Your task to perform on an android device: Go to eBay Image 0: 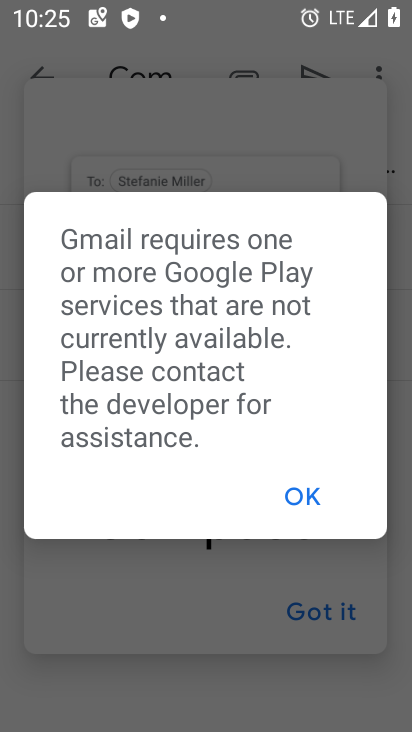
Step 0: press home button
Your task to perform on an android device: Go to eBay Image 1: 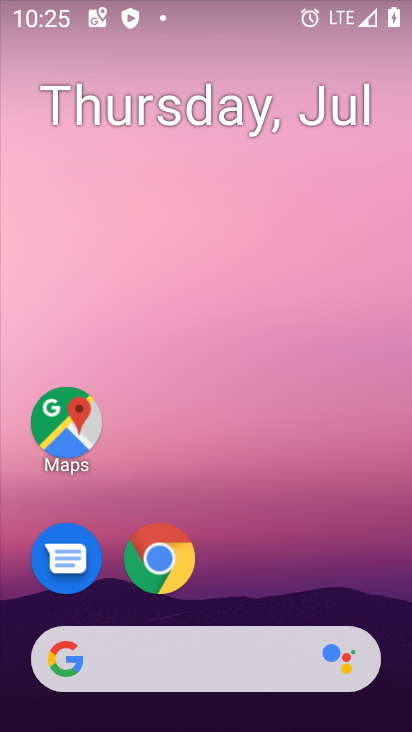
Step 1: drag from (379, 569) to (389, 79)
Your task to perform on an android device: Go to eBay Image 2: 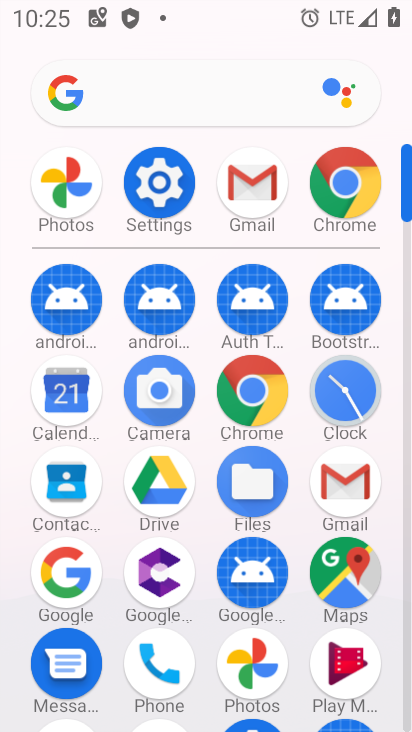
Step 2: click (349, 195)
Your task to perform on an android device: Go to eBay Image 3: 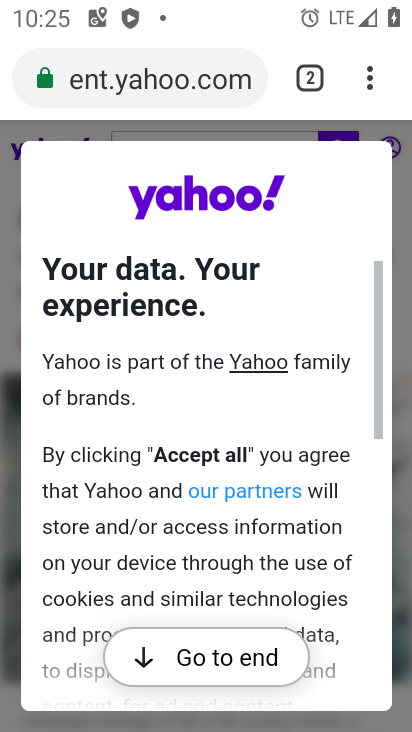
Step 3: click (190, 82)
Your task to perform on an android device: Go to eBay Image 4: 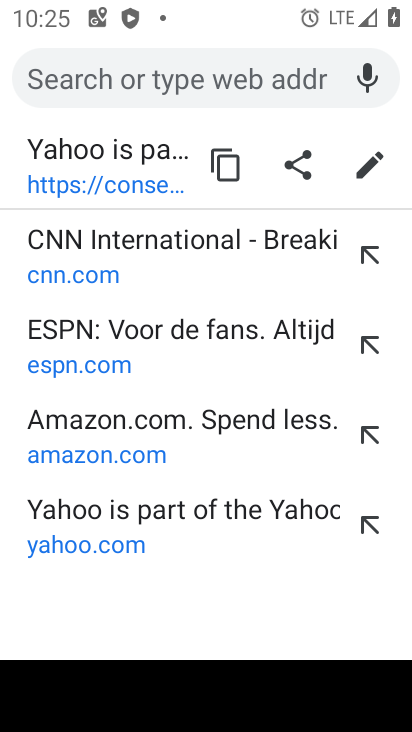
Step 4: type "ebay"
Your task to perform on an android device: Go to eBay Image 5: 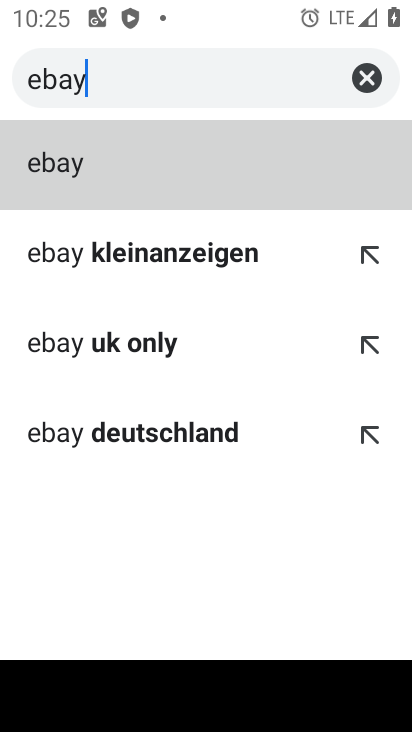
Step 5: click (318, 183)
Your task to perform on an android device: Go to eBay Image 6: 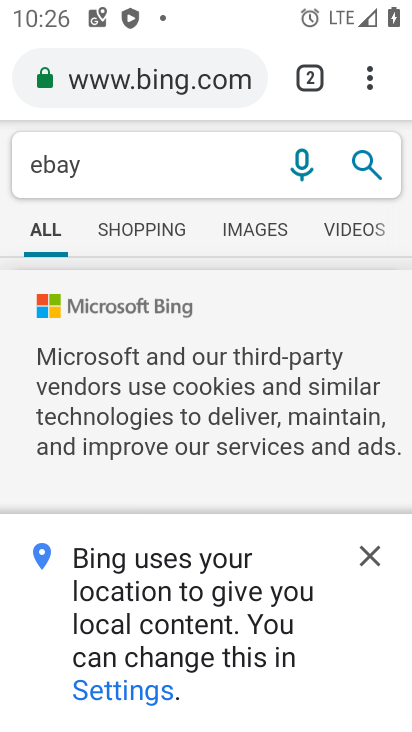
Step 6: task complete